Your task to perform on an android device: turn off smart reply in the gmail app Image 0: 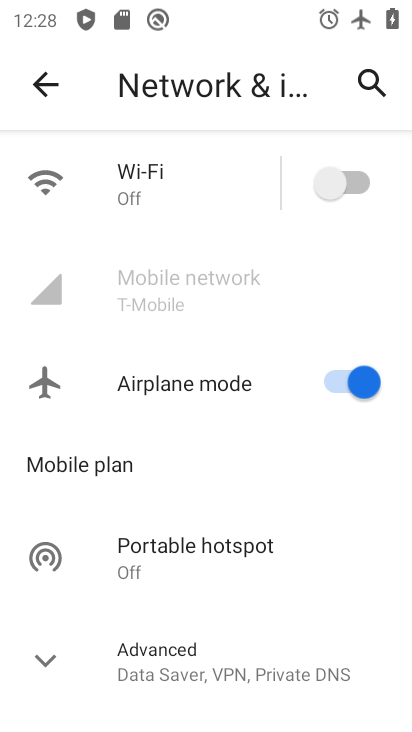
Step 0: press home button
Your task to perform on an android device: turn off smart reply in the gmail app Image 1: 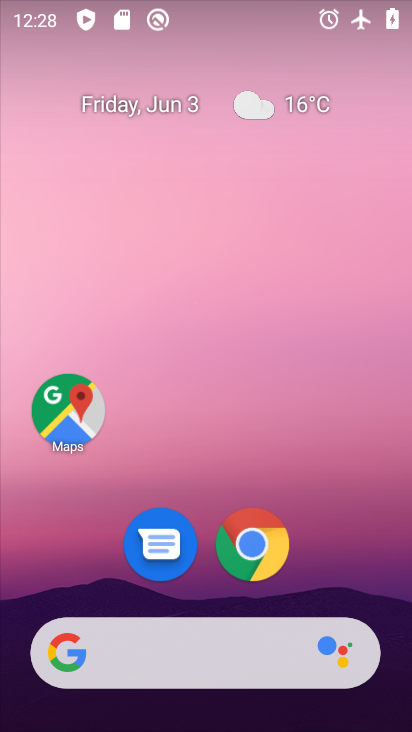
Step 1: drag from (366, 559) to (282, 117)
Your task to perform on an android device: turn off smart reply in the gmail app Image 2: 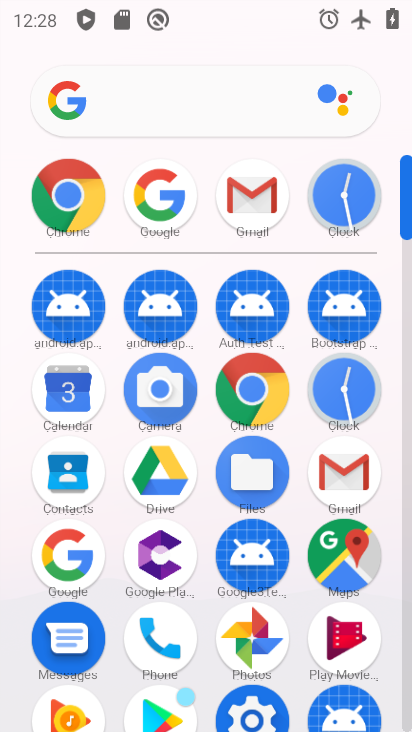
Step 2: click (259, 215)
Your task to perform on an android device: turn off smart reply in the gmail app Image 3: 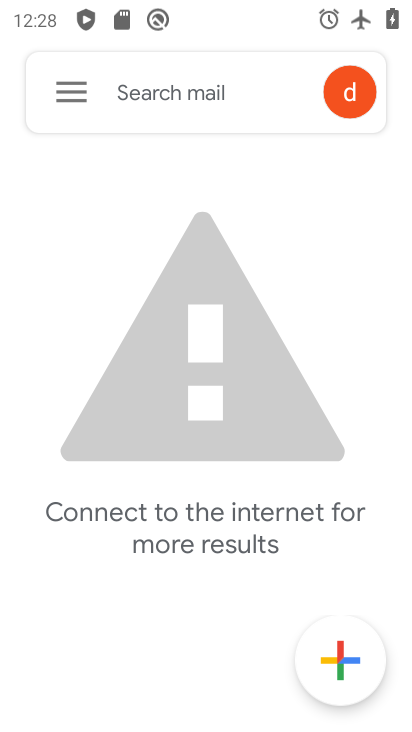
Step 3: click (84, 86)
Your task to perform on an android device: turn off smart reply in the gmail app Image 4: 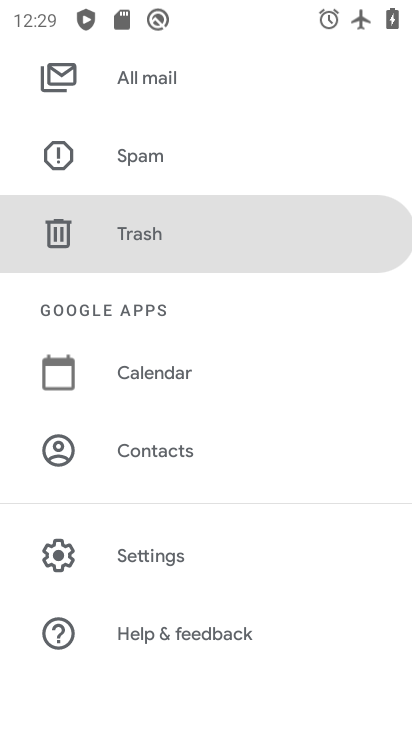
Step 4: click (141, 557)
Your task to perform on an android device: turn off smart reply in the gmail app Image 5: 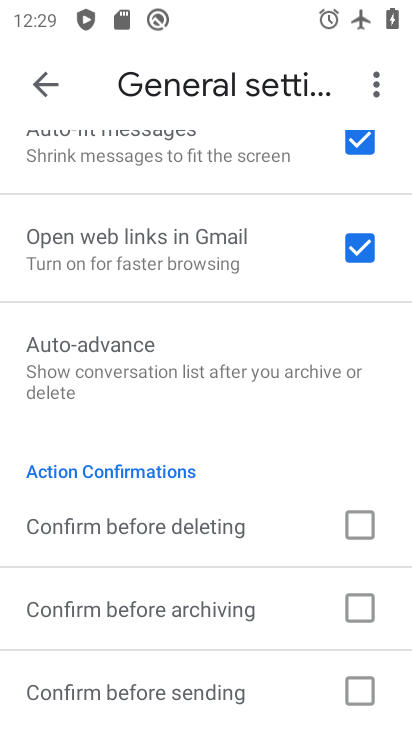
Step 5: drag from (206, 652) to (230, 240)
Your task to perform on an android device: turn off smart reply in the gmail app Image 6: 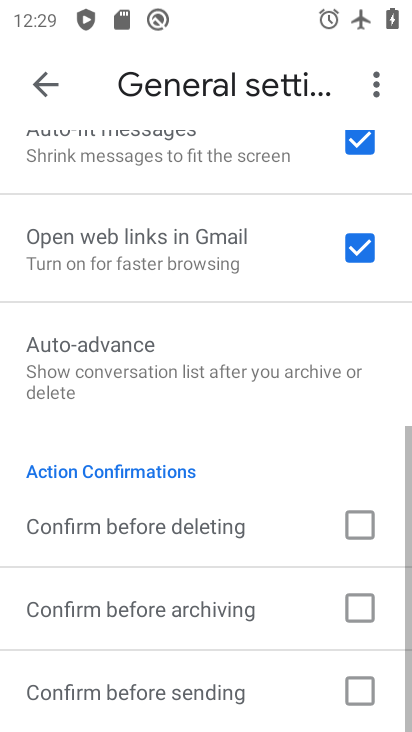
Step 6: drag from (230, 289) to (227, 663)
Your task to perform on an android device: turn off smart reply in the gmail app Image 7: 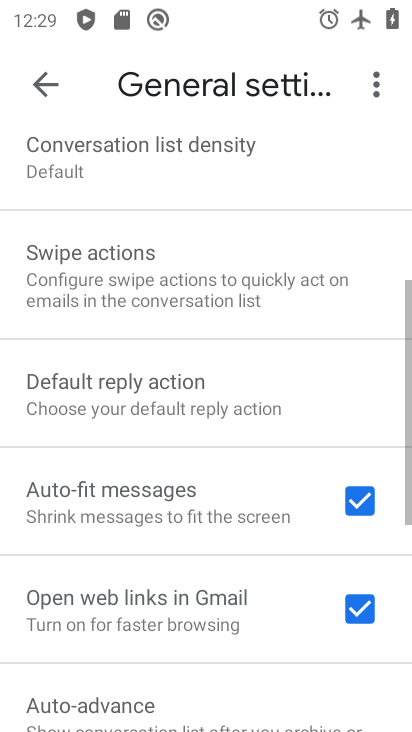
Step 7: drag from (201, 475) to (213, 639)
Your task to perform on an android device: turn off smart reply in the gmail app Image 8: 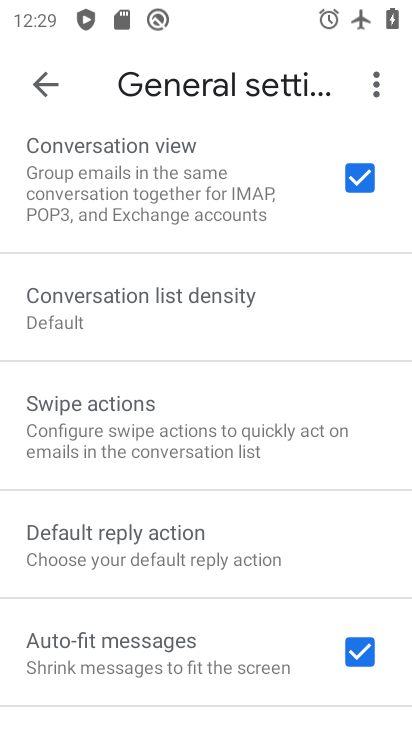
Step 8: drag from (204, 287) to (205, 664)
Your task to perform on an android device: turn off smart reply in the gmail app Image 9: 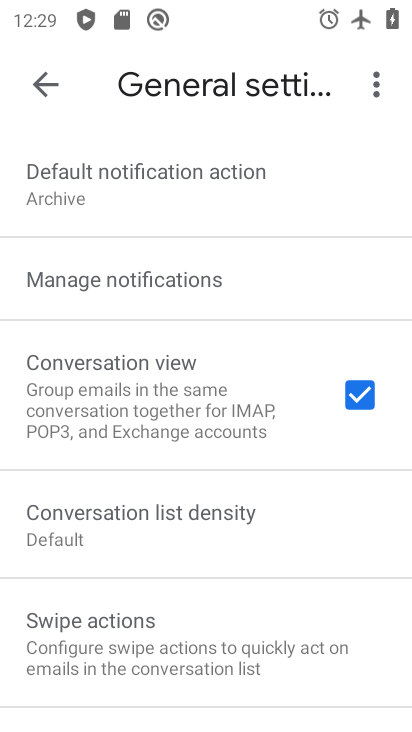
Step 9: drag from (187, 231) to (193, 567)
Your task to perform on an android device: turn off smart reply in the gmail app Image 10: 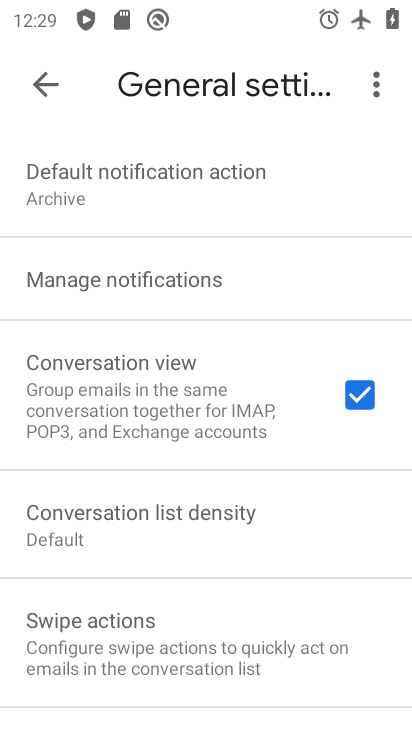
Step 10: click (34, 83)
Your task to perform on an android device: turn off smart reply in the gmail app Image 11: 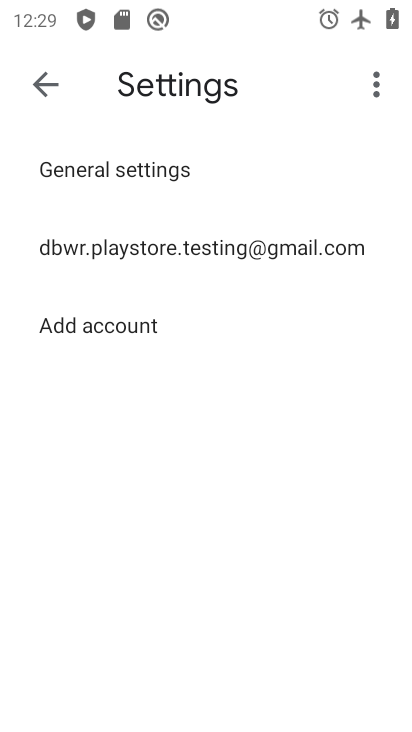
Step 11: click (250, 250)
Your task to perform on an android device: turn off smart reply in the gmail app Image 12: 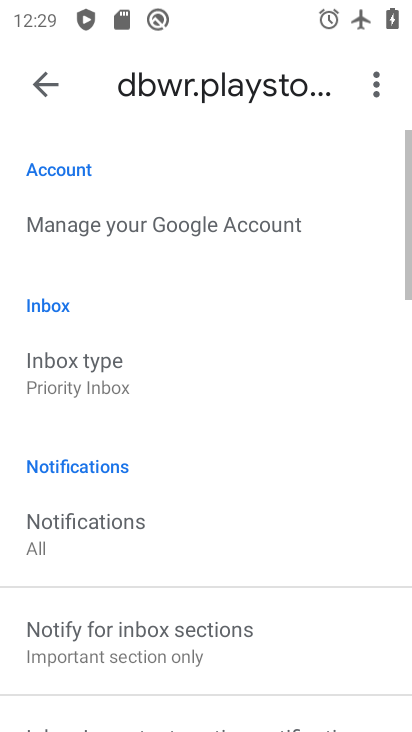
Step 12: drag from (262, 677) to (265, 201)
Your task to perform on an android device: turn off smart reply in the gmail app Image 13: 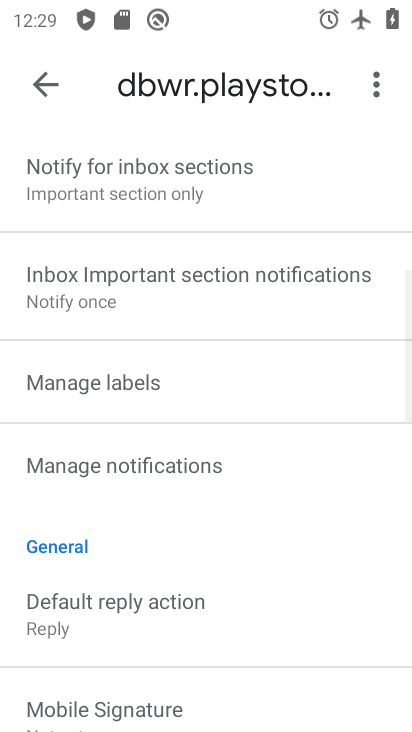
Step 13: drag from (255, 617) to (271, 186)
Your task to perform on an android device: turn off smart reply in the gmail app Image 14: 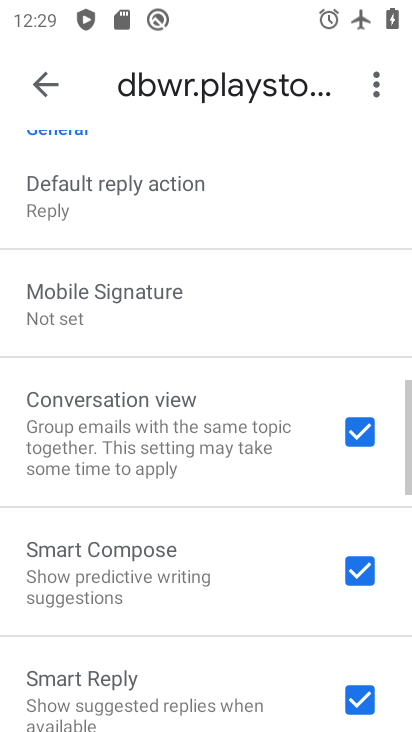
Step 14: click (348, 709)
Your task to perform on an android device: turn off smart reply in the gmail app Image 15: 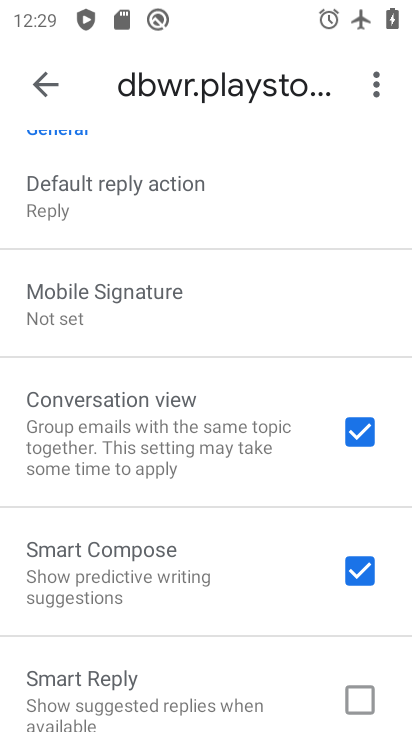
Step 15: task complete